Your task to perform on an android device: What's on my calendar tomorrow? Image 0: 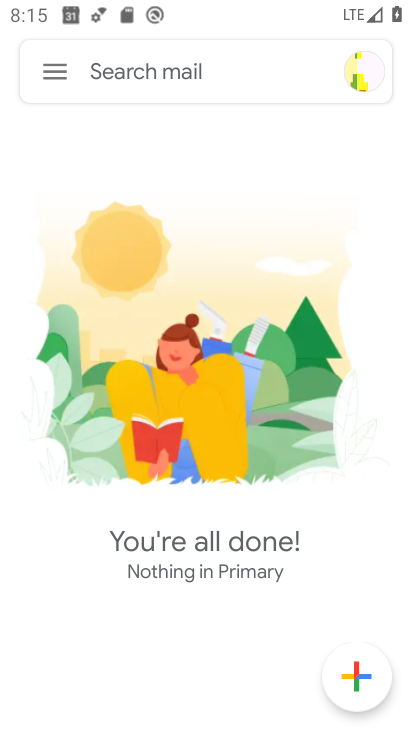
Step 0: press home button
Your task to perform on an android device: What's on my calendar tomorrow? Image 1: 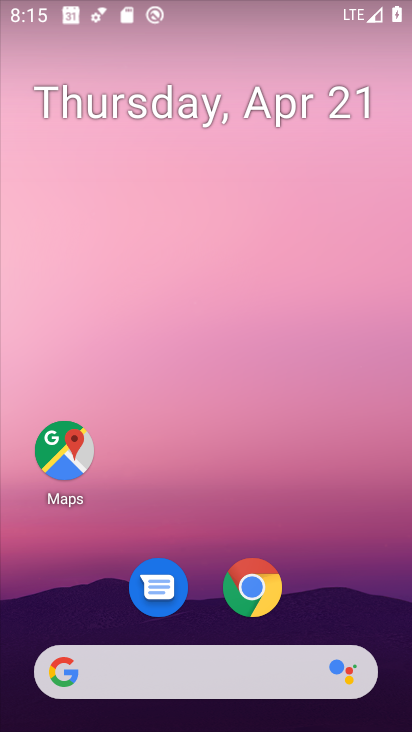
Step 1: drag from (366, 522) to (345, 230)
Your task to perform on an android device: What's on my calendar tomorrow? Image 2: 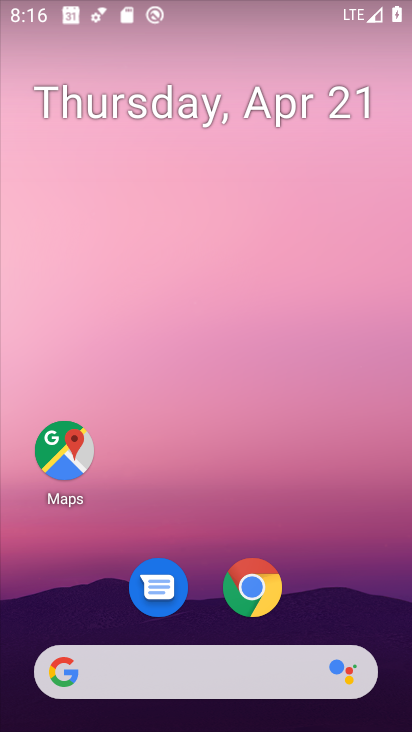
Step 2: click (383, 312)
Your task to perform on an android device: What's on my calendar tomorrow? Image 3: 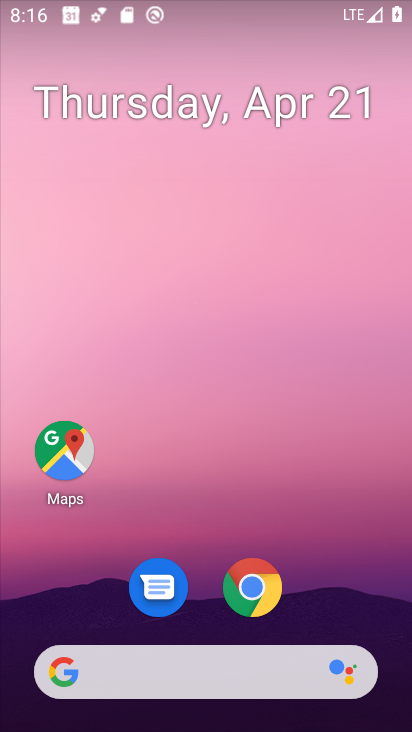
Step 3: drag from (387, 469) to (383, 206)
Your task to perform on an android device: What's on my calendar tomorrow? Image 4: 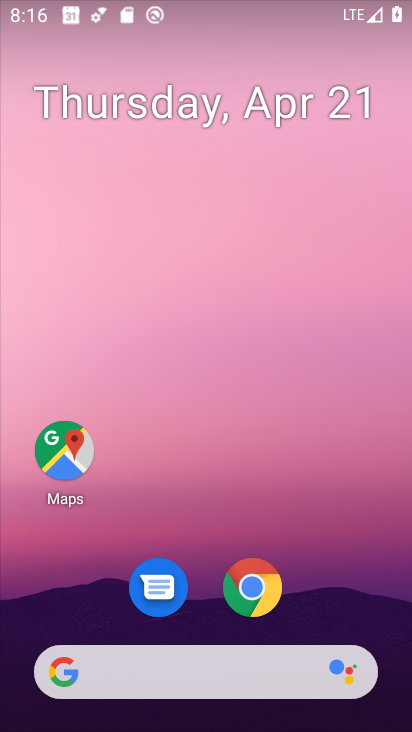
Step 4: drag from (397, 646) to (356, 146)
Your task to perform on an android device: What's on my calendar tomorrow? Image 5: 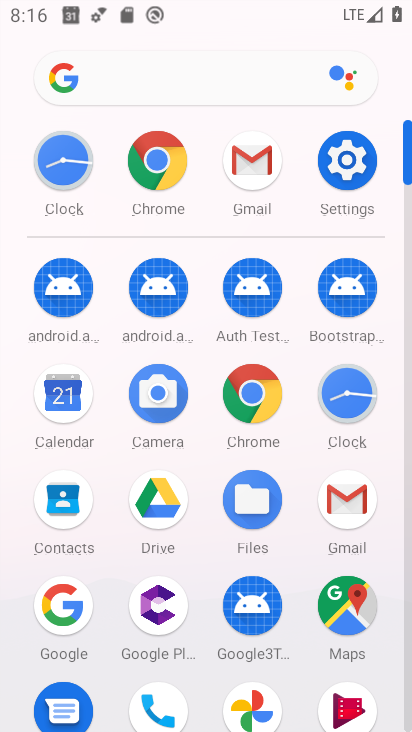
Step 5: click (52, 379)
Your task to perform on an android device: What's on my calendar tomorrow? Image 6: 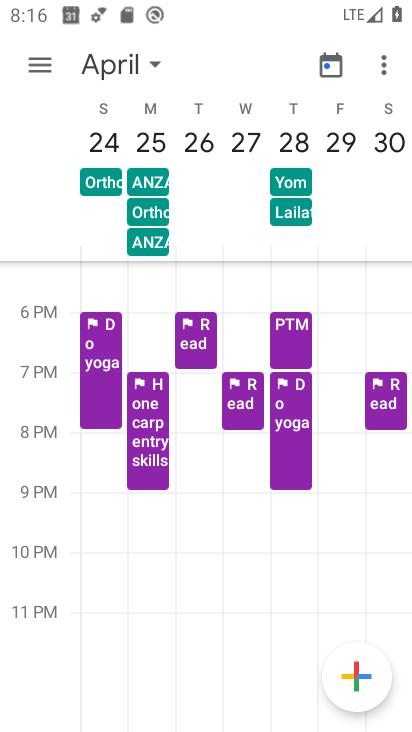
Step 6: click (147, 67)
Your task to perform on an android device: What's on my calendar tomorrow? Image 7: 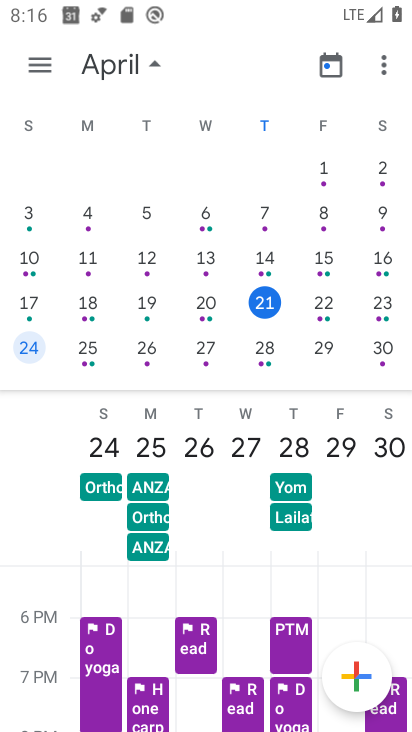
Step 7: click (319, 298)
Your task to perform on an android device: What's on my calendar tomorrow? Image 8: 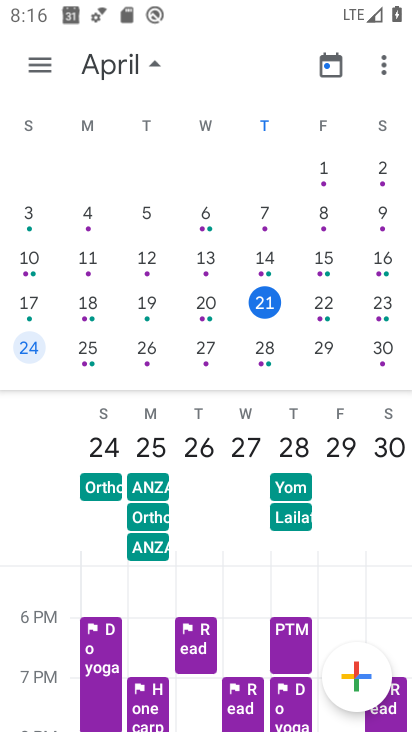
Step 8: click (319, 298)
Your task to perform on an android device: What's on my calendar tomorrow? Image 9: 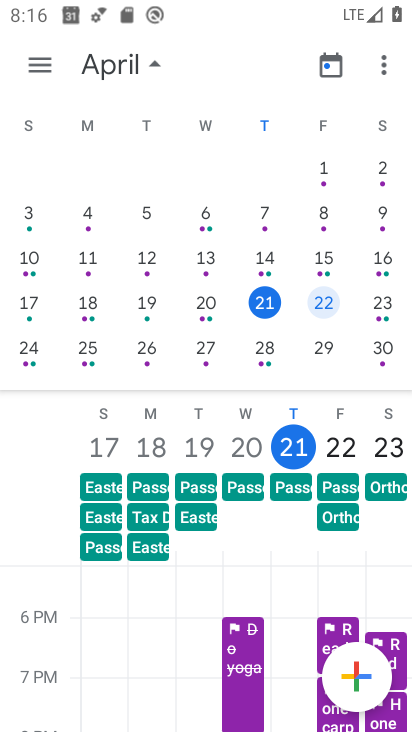
Step 9: click (319, 298)
Your task to perform on an android device: What's on my calendar tomorrow? Image 10: 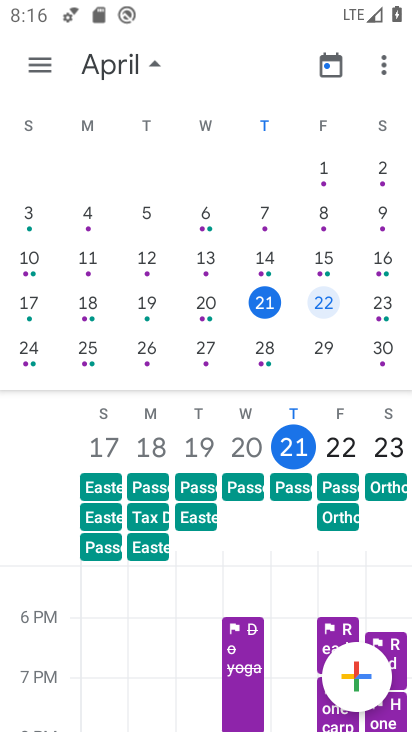
Step 10: click (37, 62)
Your task to perform on an android device: What's on my calendar tomorrow? Image 11: 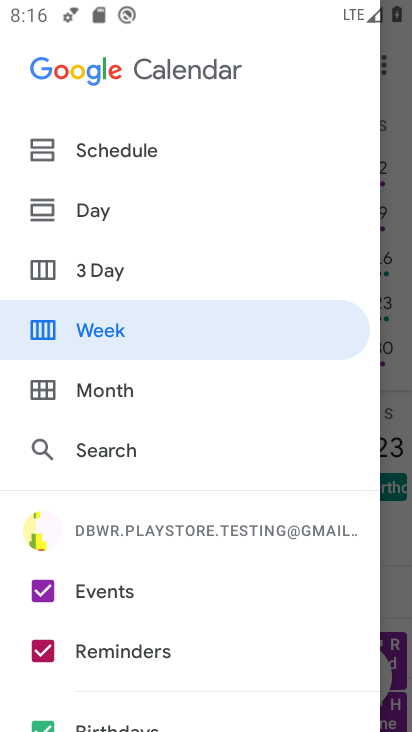
Step 11: click (78, 210)
Your task to perform on an android device: What's on my calendar tomorrow? Image 12: 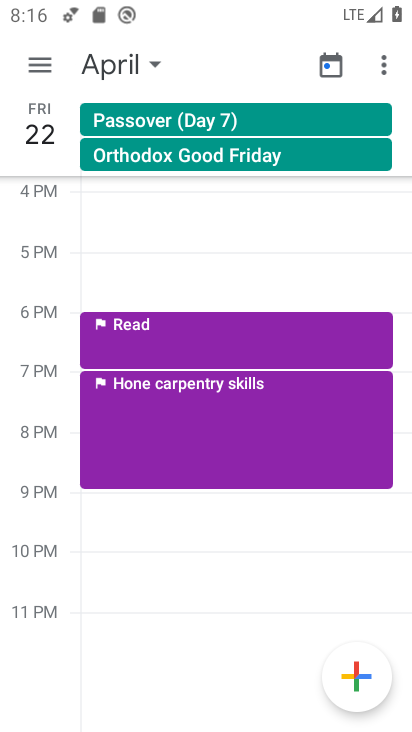
Step 12: task complete